Your task to perform on an android device: turn off priority inbox in the gmail app Image 0: 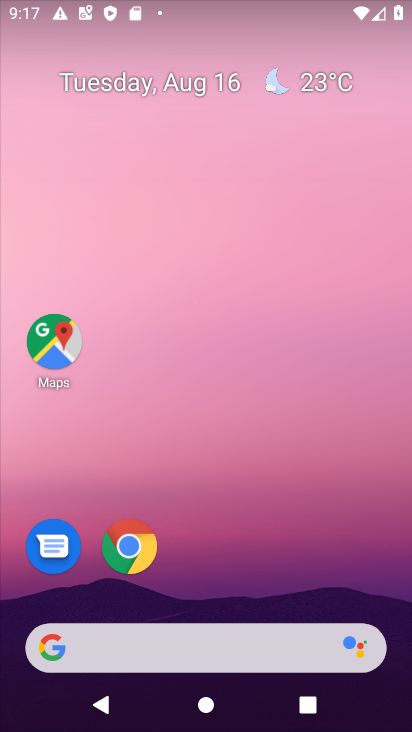
Step 0: drag from (227, 498) to (266, 0)
Your task to perform on an android device: turn off priority inbox in the gmail app Image 1: 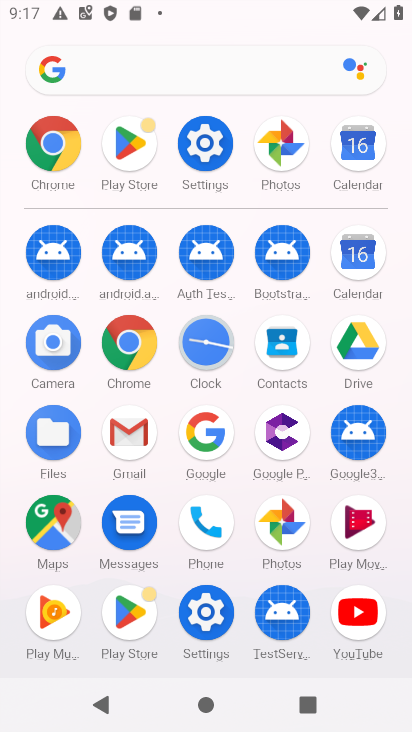
Step 1: click (133, 433)
Your task to perform on an android device: turn off priority inbox in the gmail app Image 2: 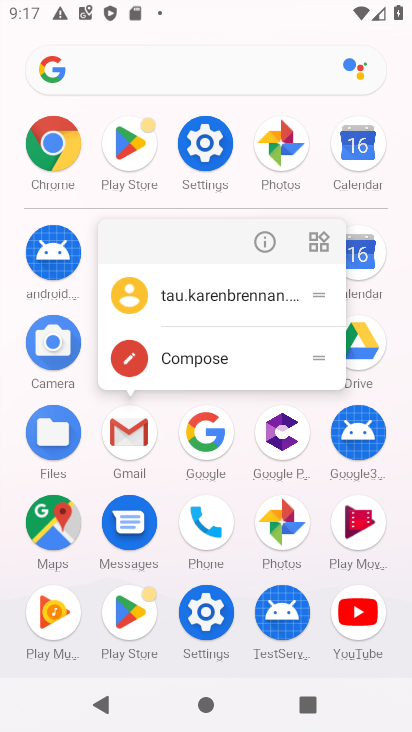
Step 2: click (133, 433)
Your task to perform on an android device: turn off priority inbox in the gmail app Image 3: 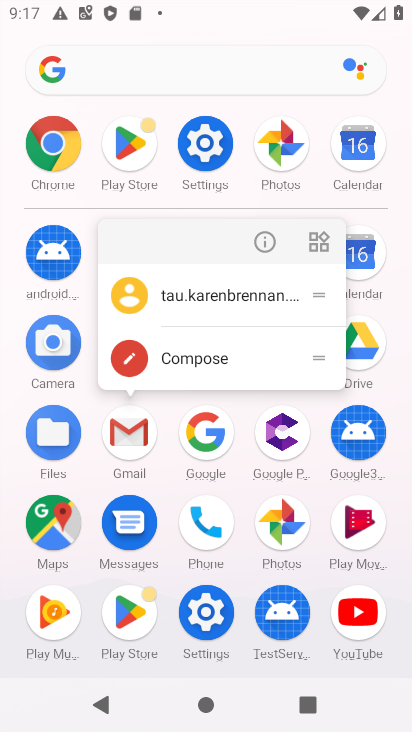
Step 3: click (133, 426)
Your task to perform on an android device: turn off priority inbox in the gmail app Image 4: 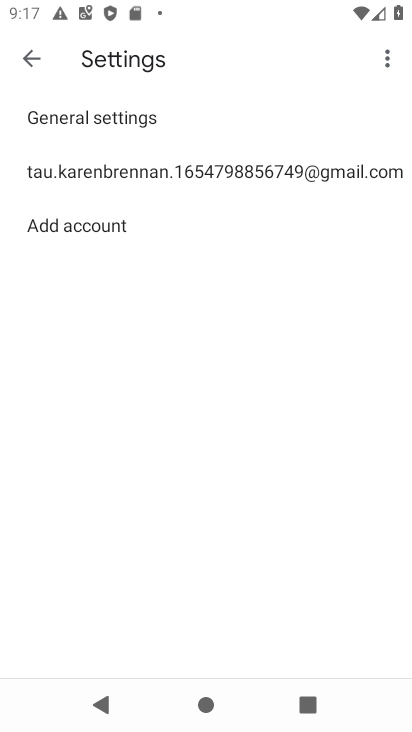
Step 4: click (124, 172)
Your task to perform on an android device: turn off priority inbox in the gmail app Image 5: 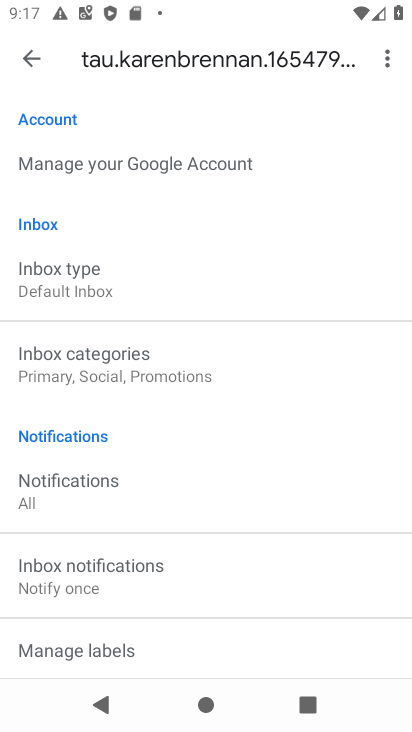
Step 5: click (95, 280)
Your task to perform on an android device: turn off priority inbox in the gmail app Image 6: 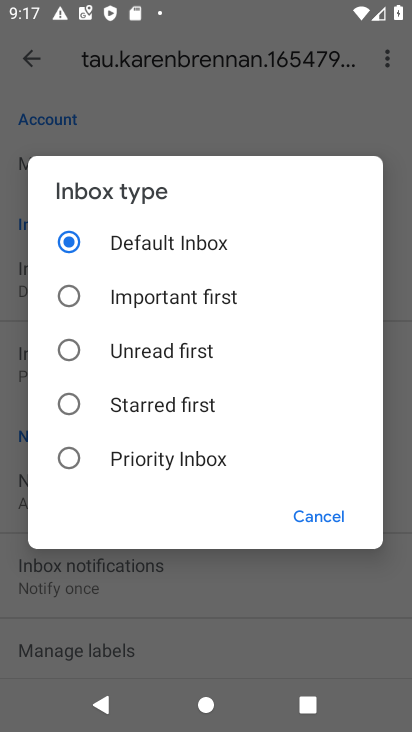
Step 6: click (102, 240)
Your task to perform on an android device: turn off priority inbox in the gmail app Image 7: 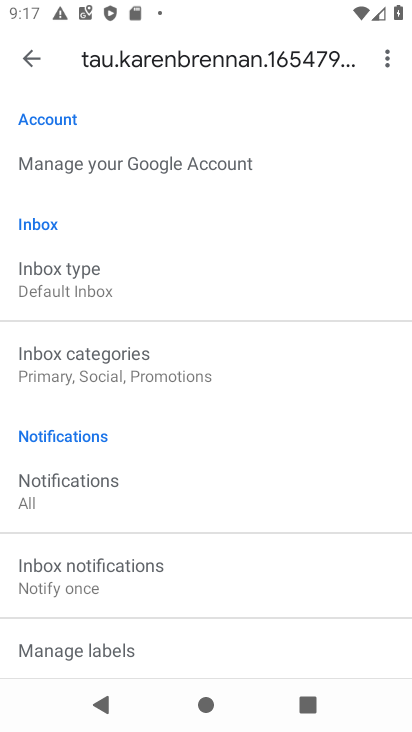
Step 7: task complete